Your task to perform on an android device: Go to wifi settings Image 0: 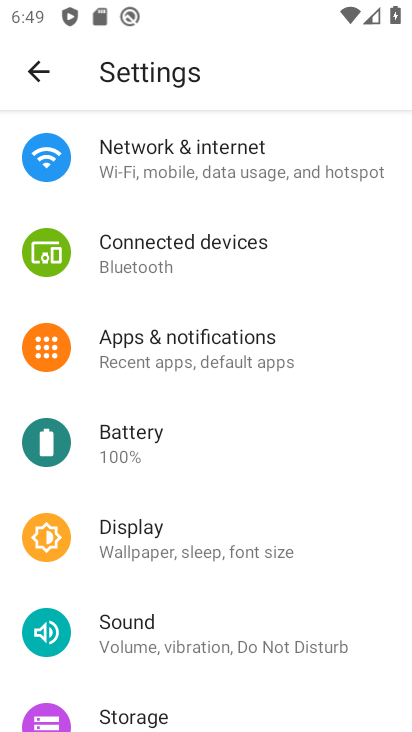
Step 0: click (204, 158)
Your task to perform on an android device: Go to wifi settings Image 1: 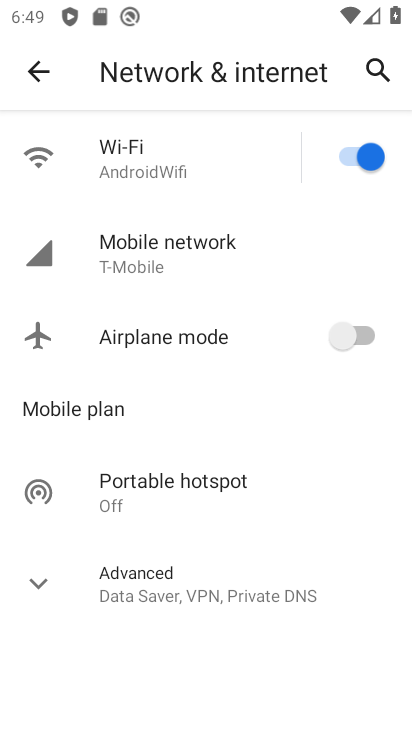
Step 1: click (194, 145)
Your task to perform on an android device: Go to wifi settings Image 2: 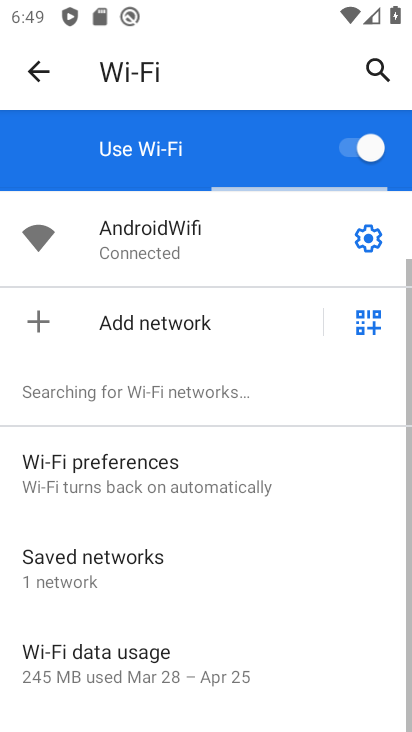
Step 2: task complete